Your task to perform on an android device: Open calendar and show me the fourth week of next month Image 0: 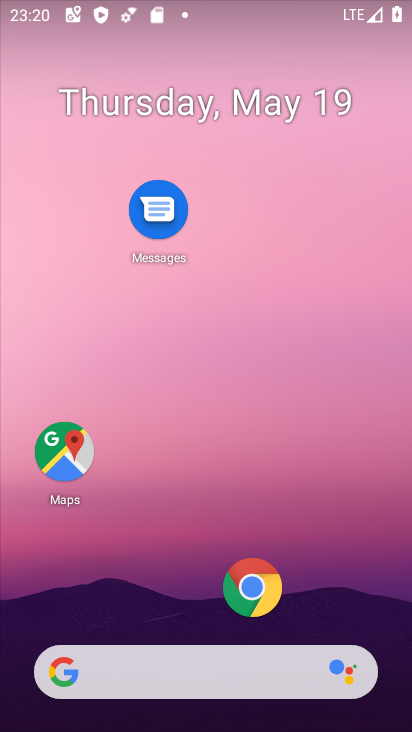
Step 0: click (234, 115)
Your task to perform on an android device: Open calendar and show me the fourth week of next month Image 1: 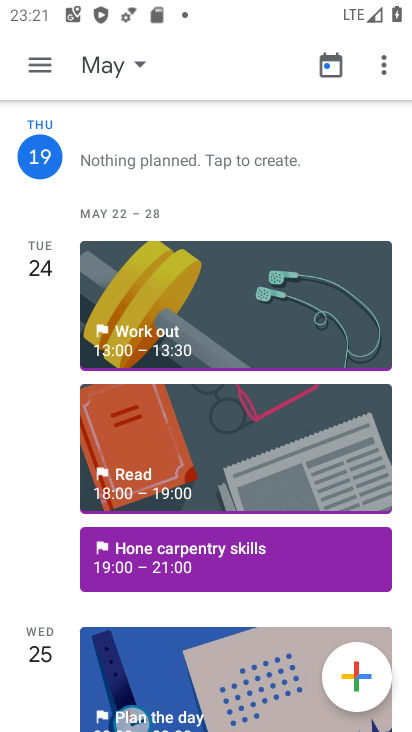
Step 1: click (103, 79)
Your task to perform on an android device: Open calendar and show me the fourth week of next month Image 2: 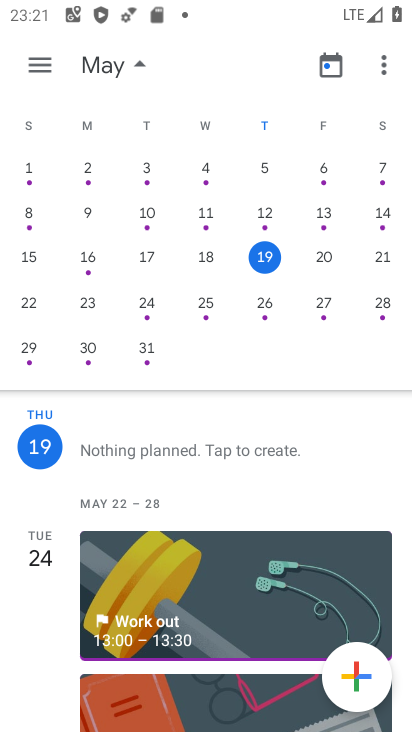
Step 2: drag from (367, 352) to (45, 318)
Your task to perform on an android device: Open calendar and show me the fourth week of next month Image 3: 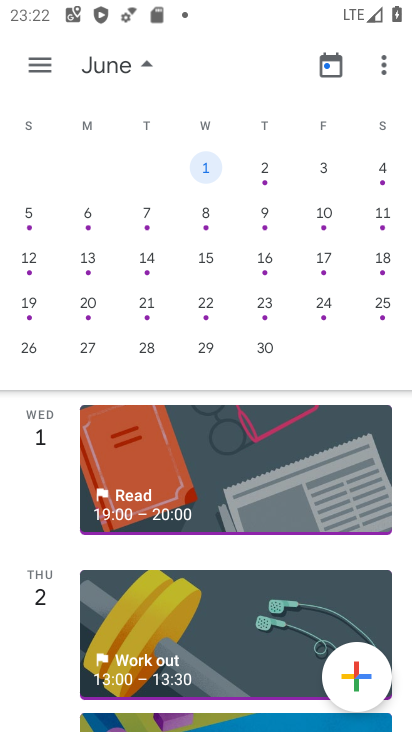
Step 3: click (283, 302)
Your task to perform on an android device: Open calendar and show me the fourth week of next month Image 4: 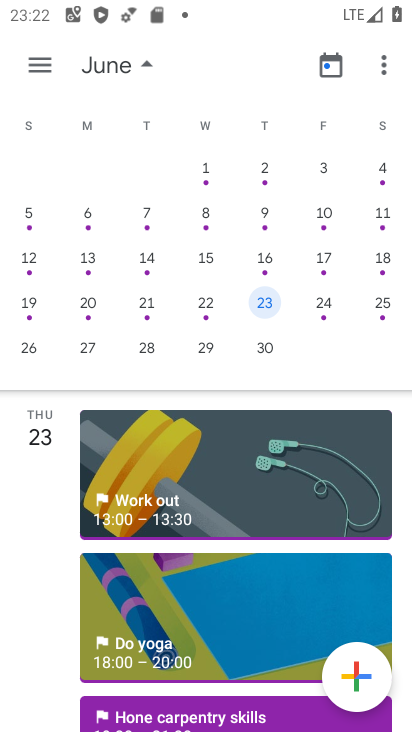
Step 4: task complete